Your task to perform on an android device: change the upload size in google photos Image 0: 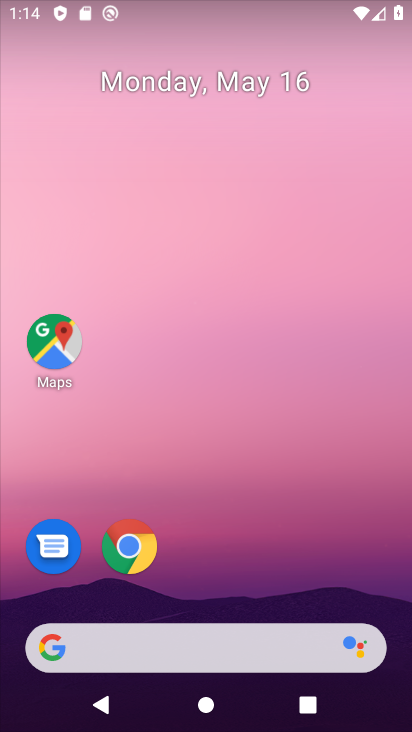
Step 0: drag from (201, 501) to (255, 140)
Your task to perform on an android device: change the upload size in google photos Image 1: 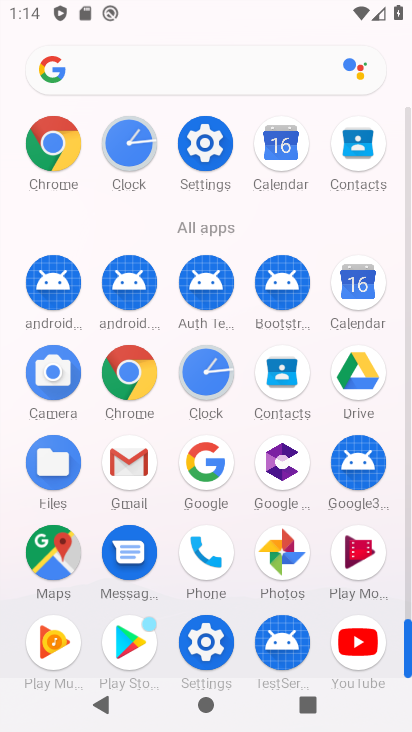
Step 1: click (279, 548)
Your task to perform on an android device: change the upload size in google photos Image 2: 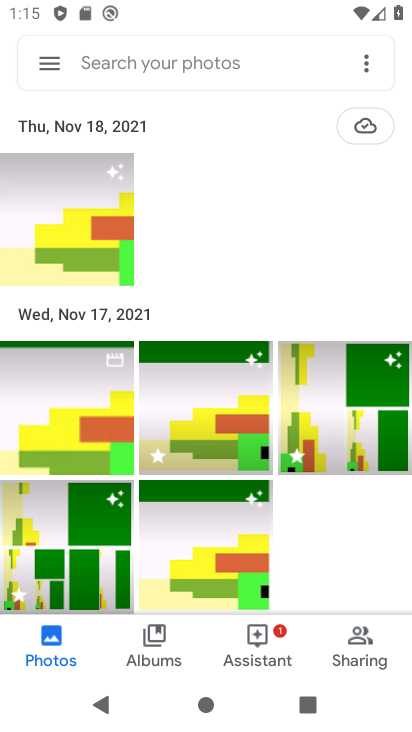
Step 2: click (43, 63)
Your task to perform on an android device: change the upload size in google photos Image 3: 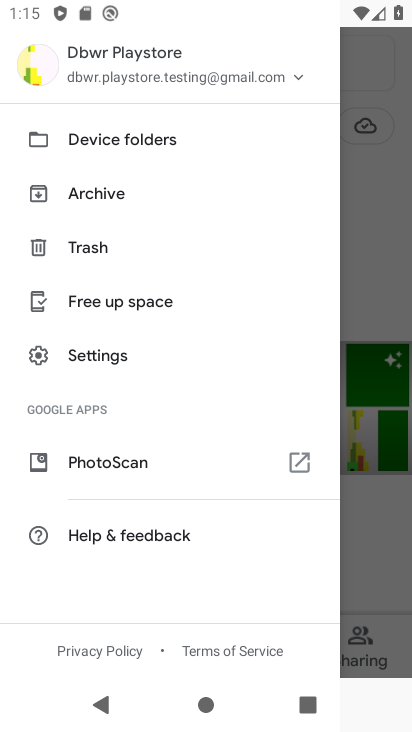
Step 3: click (112, 354)
Your task to perform on an android device: change the upload size in google photos Image 4: 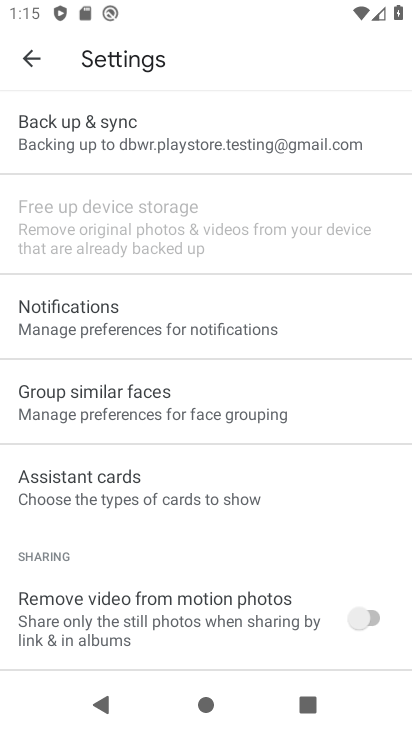
Step 4: click (154, 123)
Your task to perform on an android device: change the upload size in google photos Image 5: 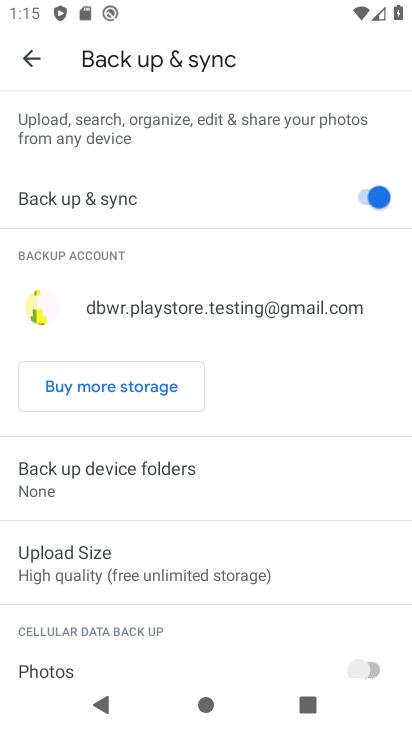
Step 5: click (39, 561)
Your task to perform on an android device: change the upload size in google photos Image 6: 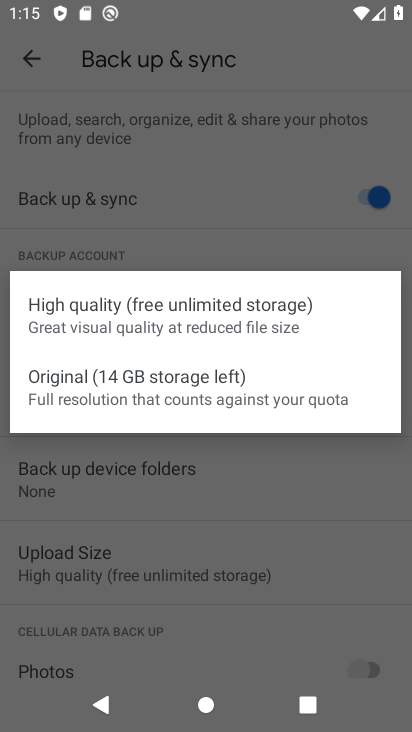
Step 6: click (242, 332)
Your task to perform on an android device: change the upload size in google photos Image 7: 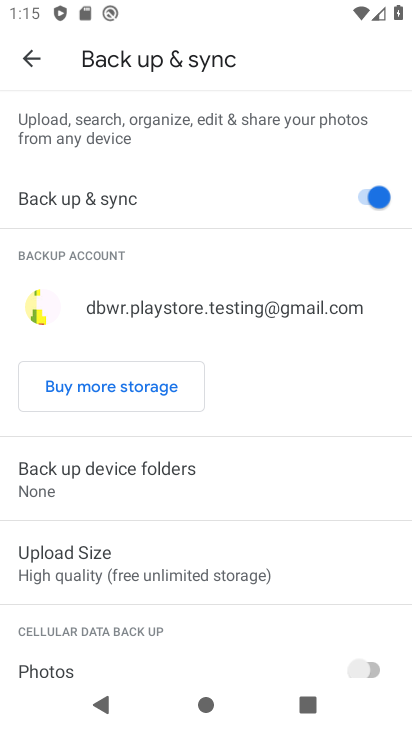
Step 7: task complete